Your task to perform on an android device: Go to network settings Image 0: 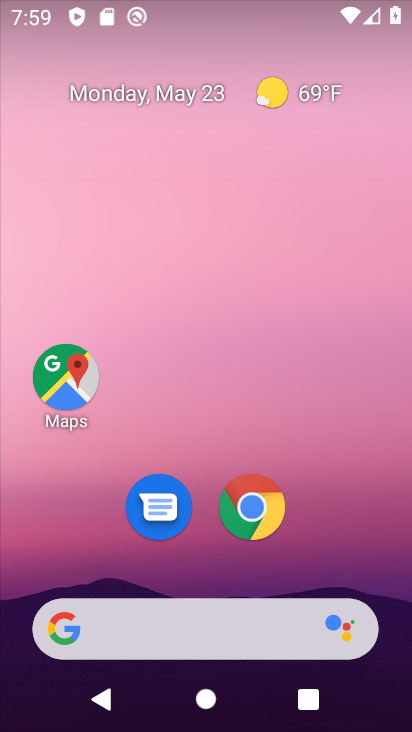
Step 0: click (411, 107)
Your task to perform on an android device: Go to network settings Image 1: 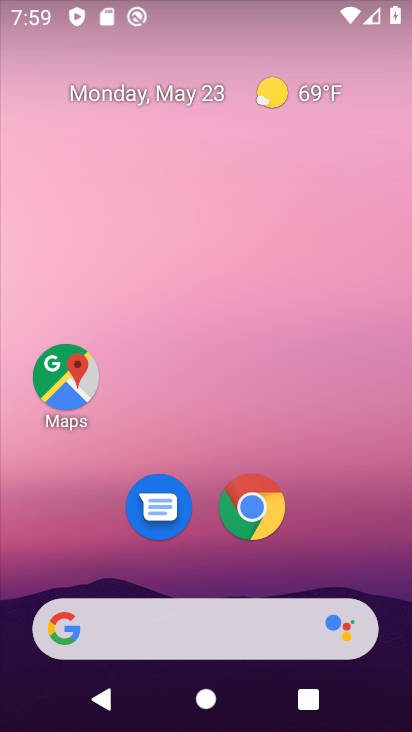
Step 1: drag from (331, 577) to (364, 33)
Your task to perform on an android device: Go to network settings Image 2: 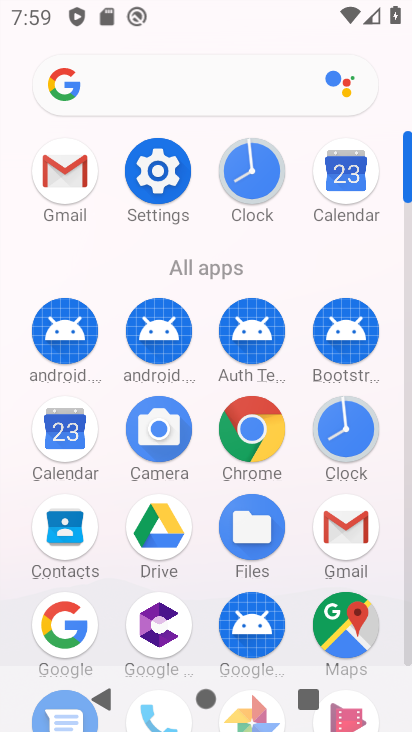
Step 2: click (150, 177)
Your task to perform on an android device: Go to network settings Image 3: 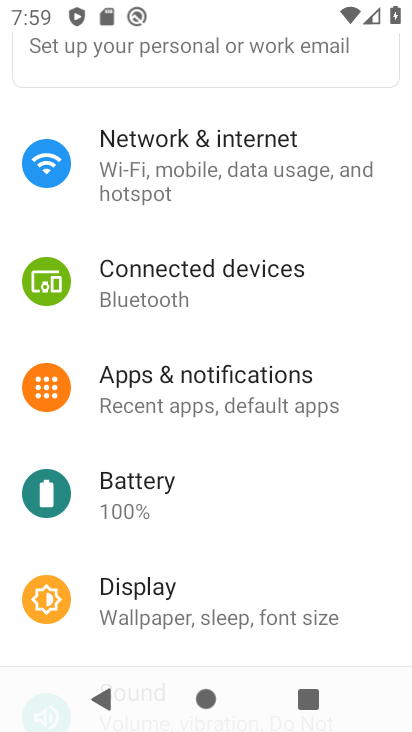
Step 3: click (150, 177)
Your task to perform on an android device: Go to network settings Image 4: 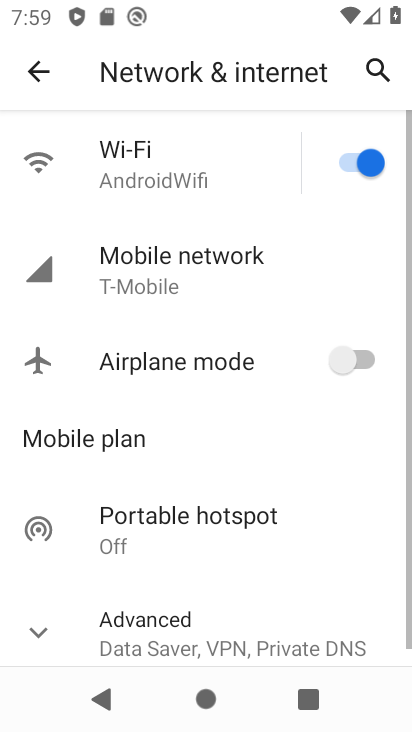
Step 4: click (139, 261)
Your task to perform on an android device: Go to network settings Image 5: 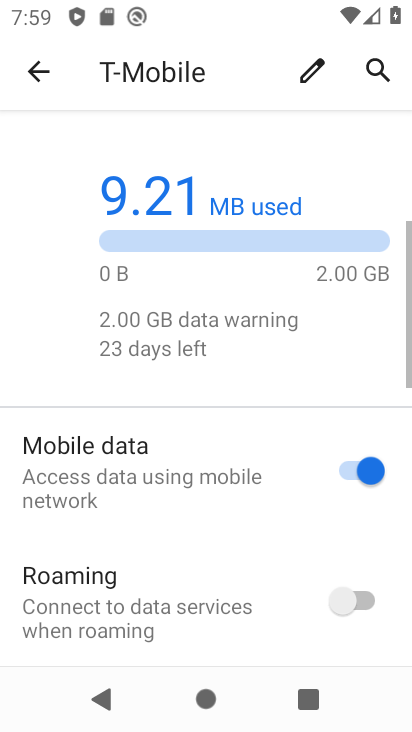
Step 5: drag from (157, 527) to (182, 110)
Your task to perform on an android device: Go to network settings Image 6: 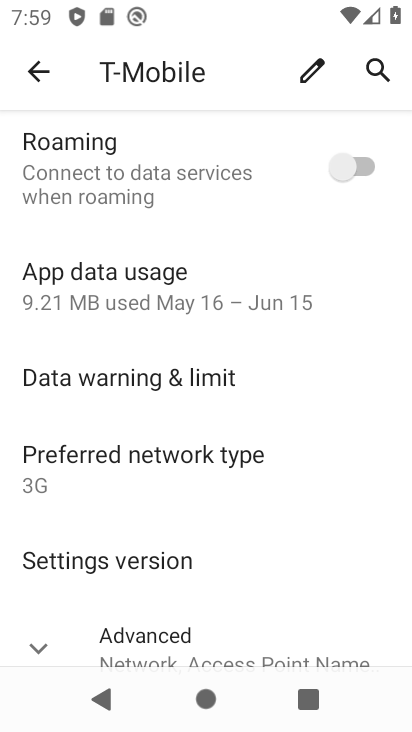
Step 6: drag from (82, 576) to (95, 233)
Your task to perform on an android device: Go to network settings Image 7: 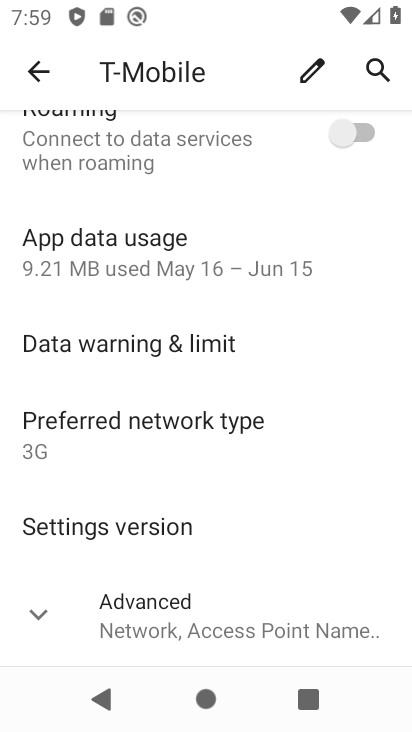
Step 7: click (43, 626)
Your task to perform on an android device: Go to network settings Image 8: 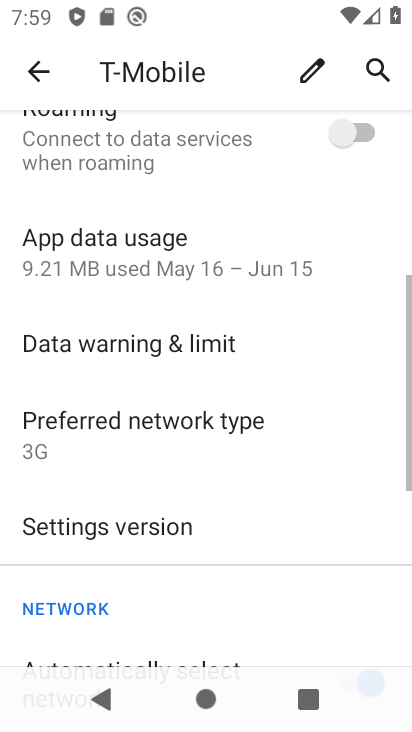
Step 8: task complete